Your task to perform on an android device: Add "razer blackwidow" to the cart on newegg, then select checkout. Image 0: 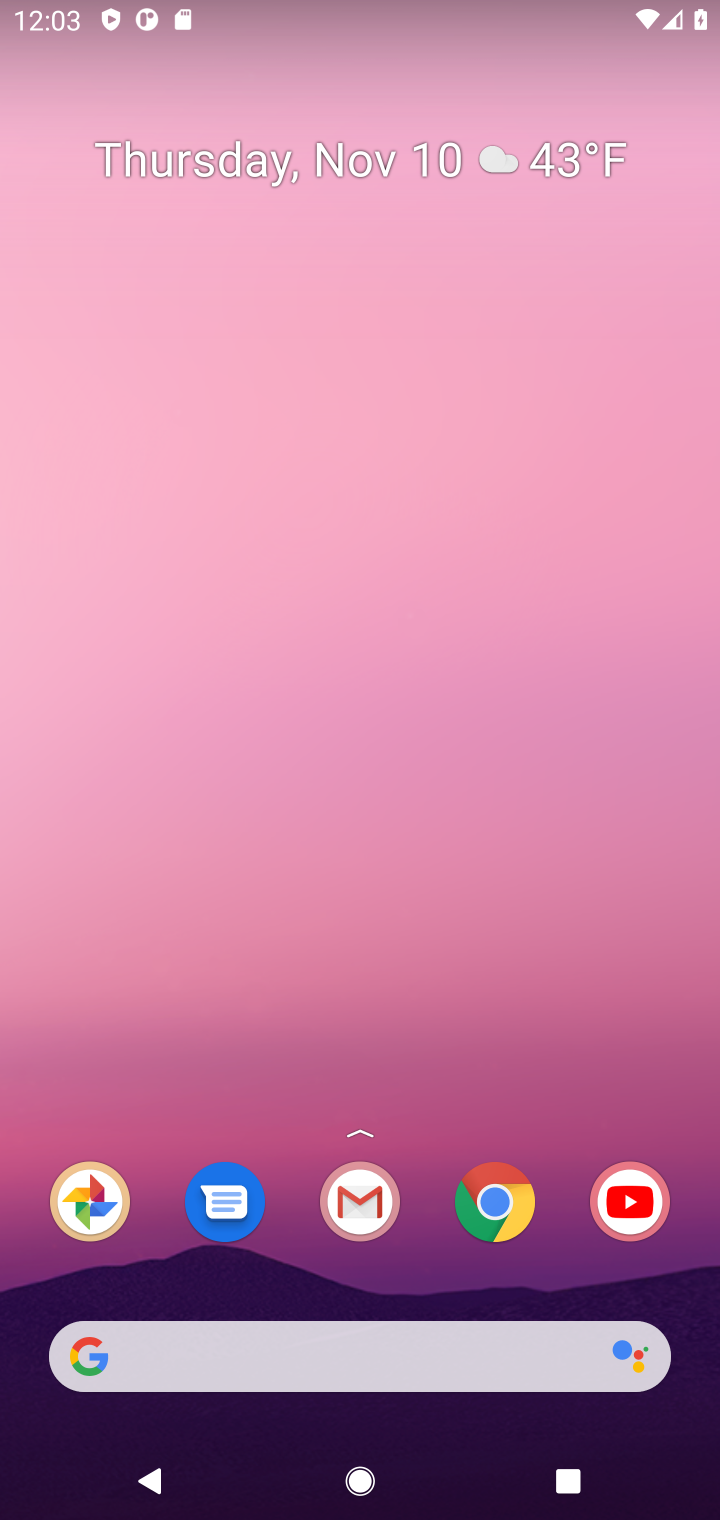
Step 0: click (502, 1208)
Your task to perform on an android device: Add "razer blackwidow" to the cart on newegg, then select checkout. Image 1: 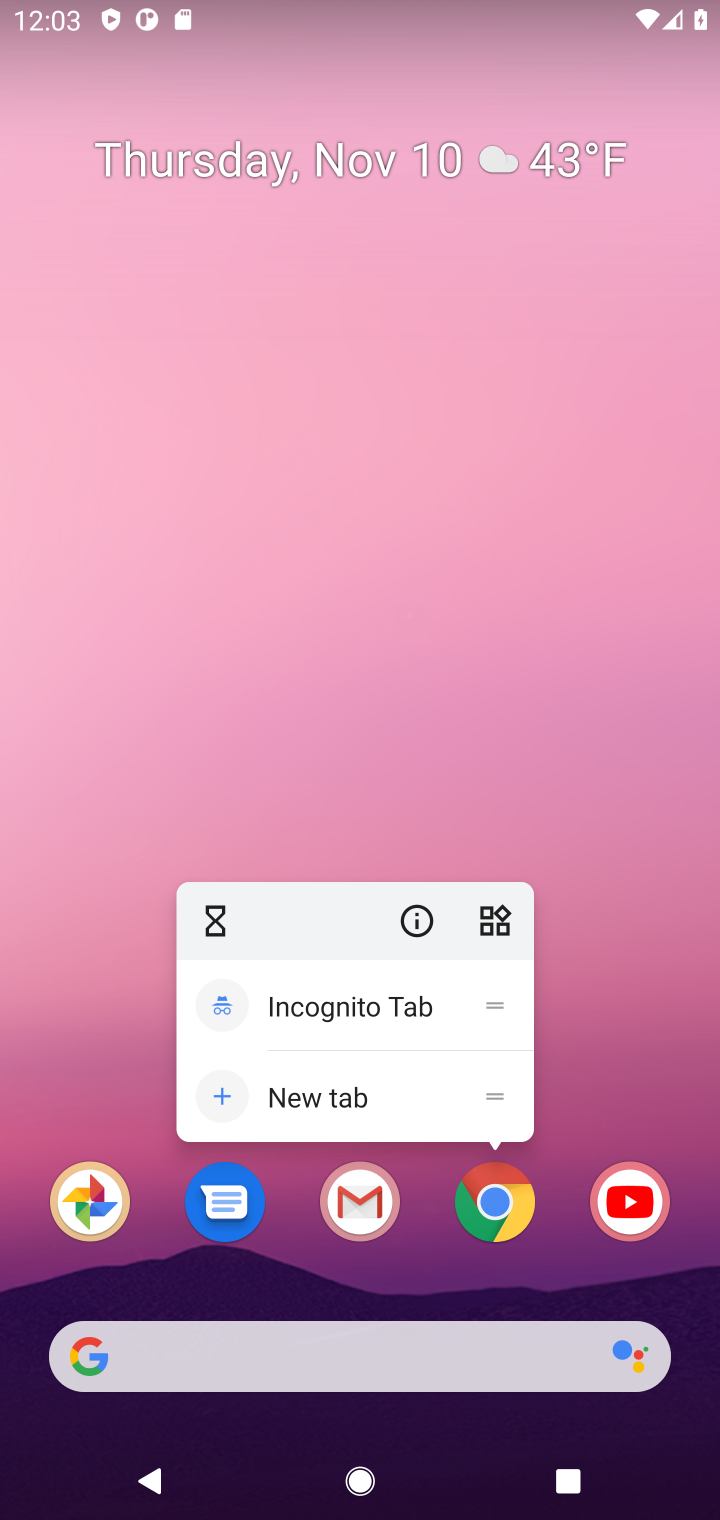
Step 1: click (506, 1196)
Your task to perform on an android device: Add "razer blackwidow" to the cart on newegg, then select checkout. Image 2: 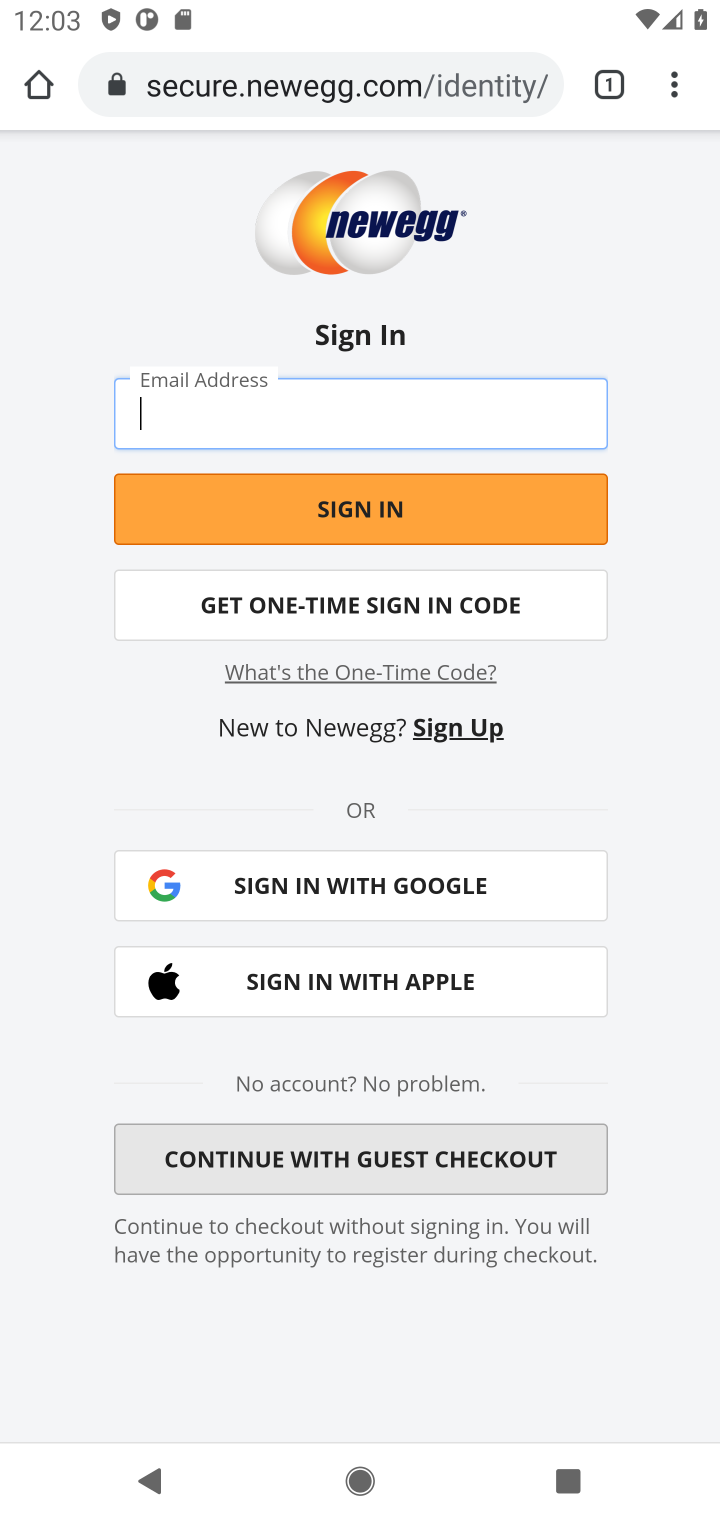
Step 2: press back button
Your task to perform on an android device: Add "razer blackwidow" to the cart on newegg, then select checkout. Image 3: 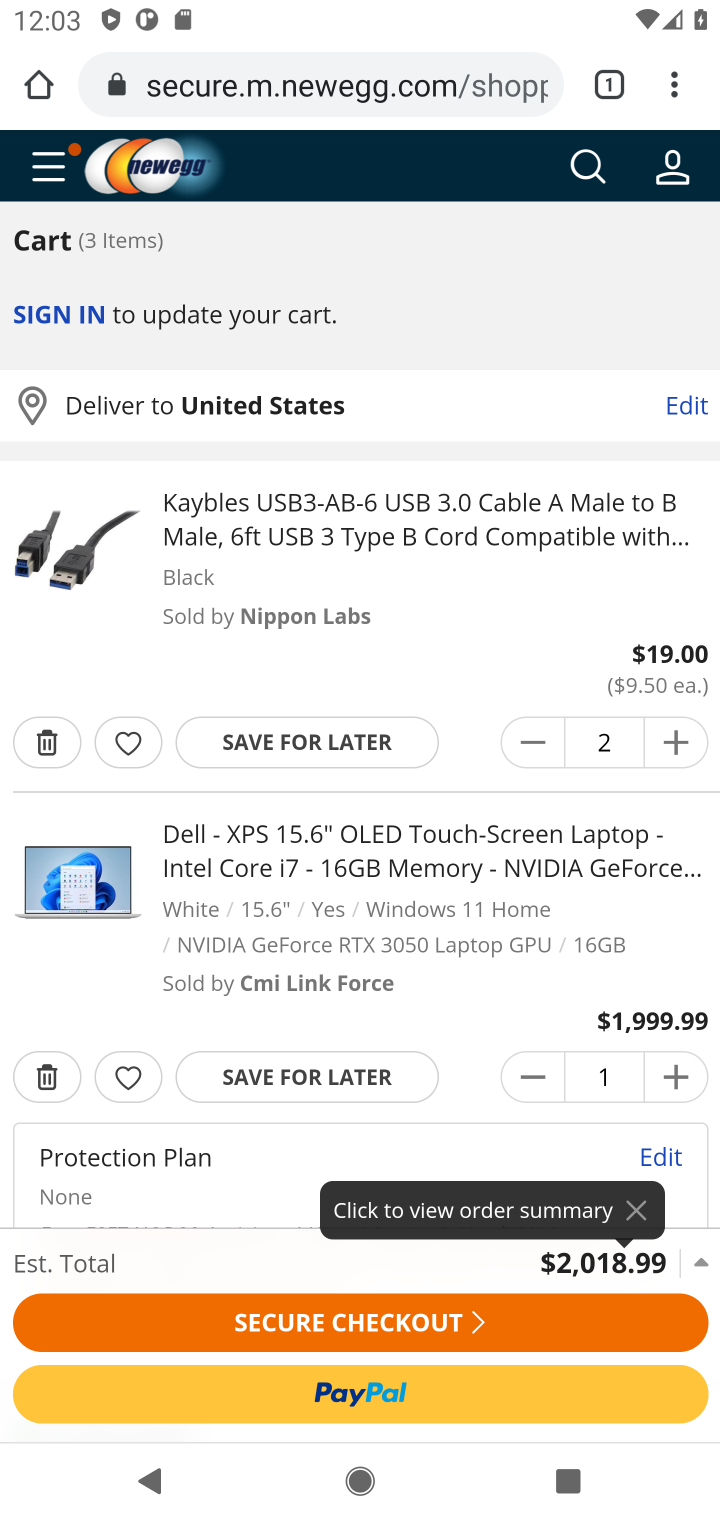
Step 3: click (585, 167)
Your task to perform on an android device: Add "razer blackwidow" to the cart on newegg, then select checkout. Image 4: 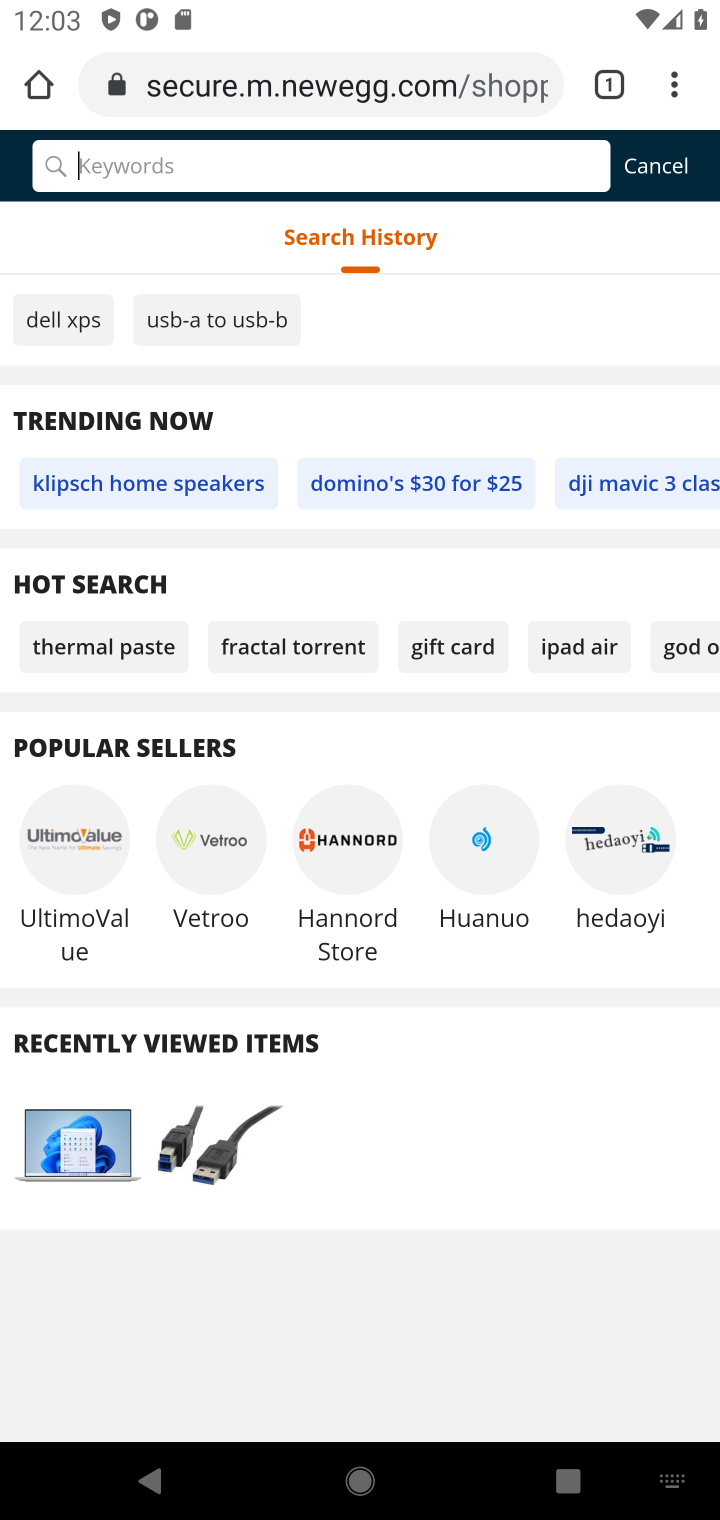
Step 4: type "razer blackwidow"
Your task to perform on an android device: Add "razer blackwidow" to the cart on newegg, then select checkout. Image 5: 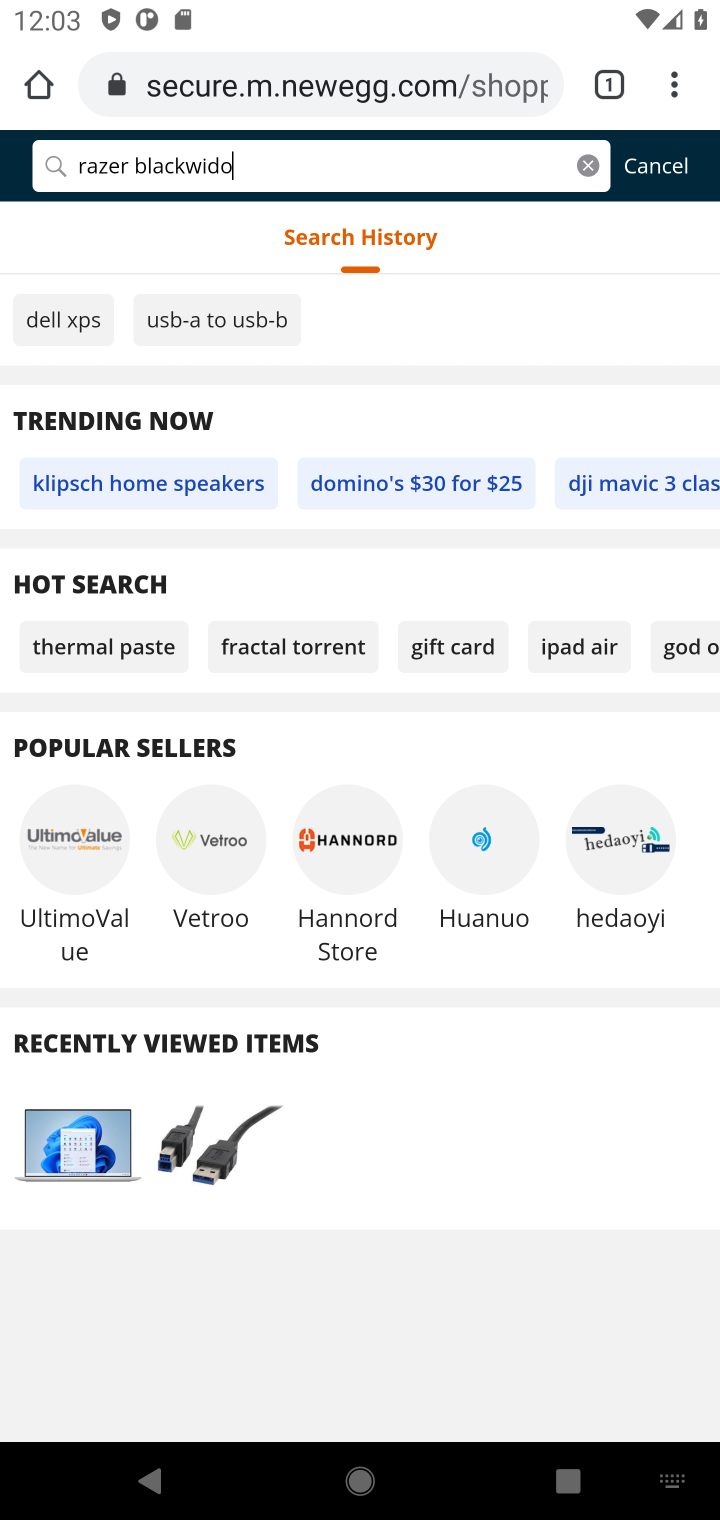
Step 5: press enter
Your task to perform on an android device: Add "razer blackwidow" to the cart on newegg, then select checkout. Image 6: 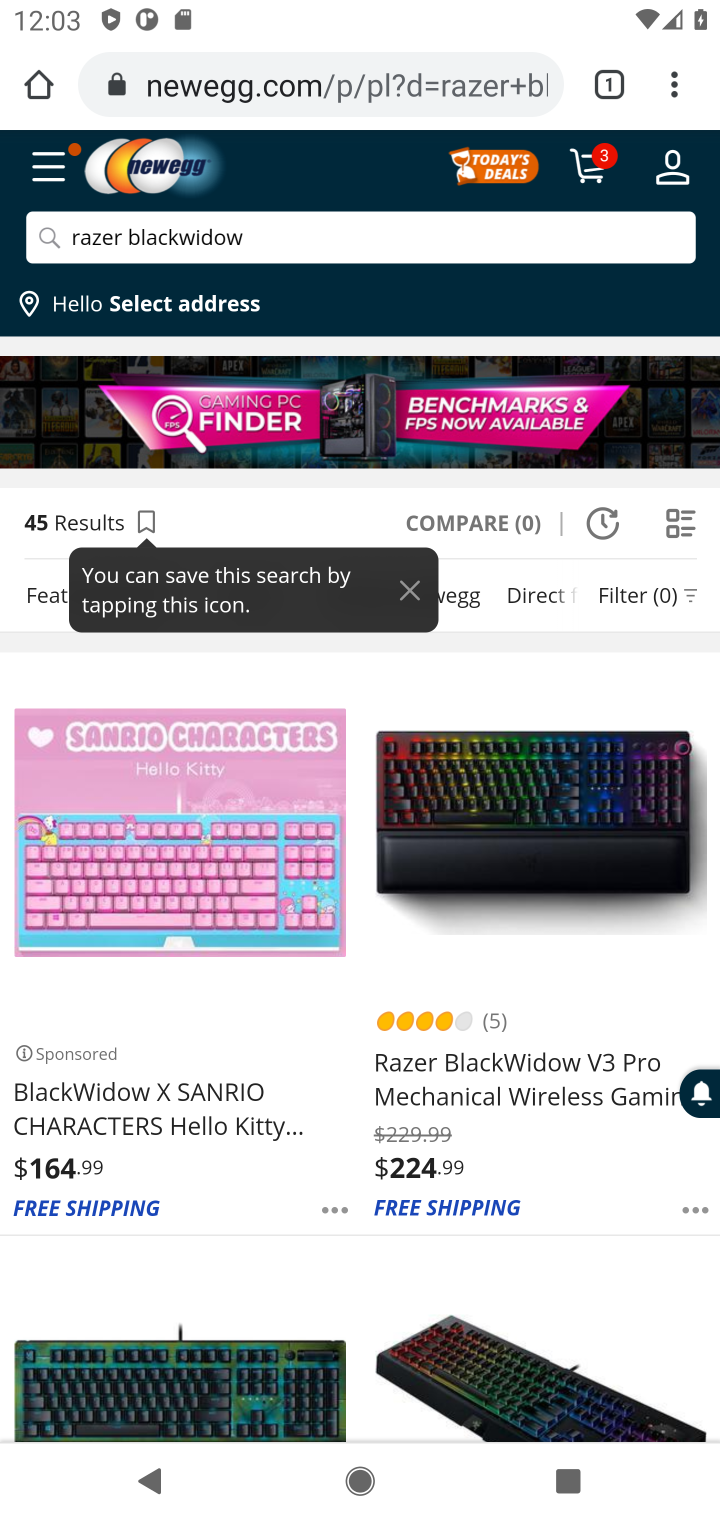
Step 6: click (547, 794)
Your task to perform on an android device: Add "razer blackwidow" to the cart on newegg, then select checkout. Image 7: 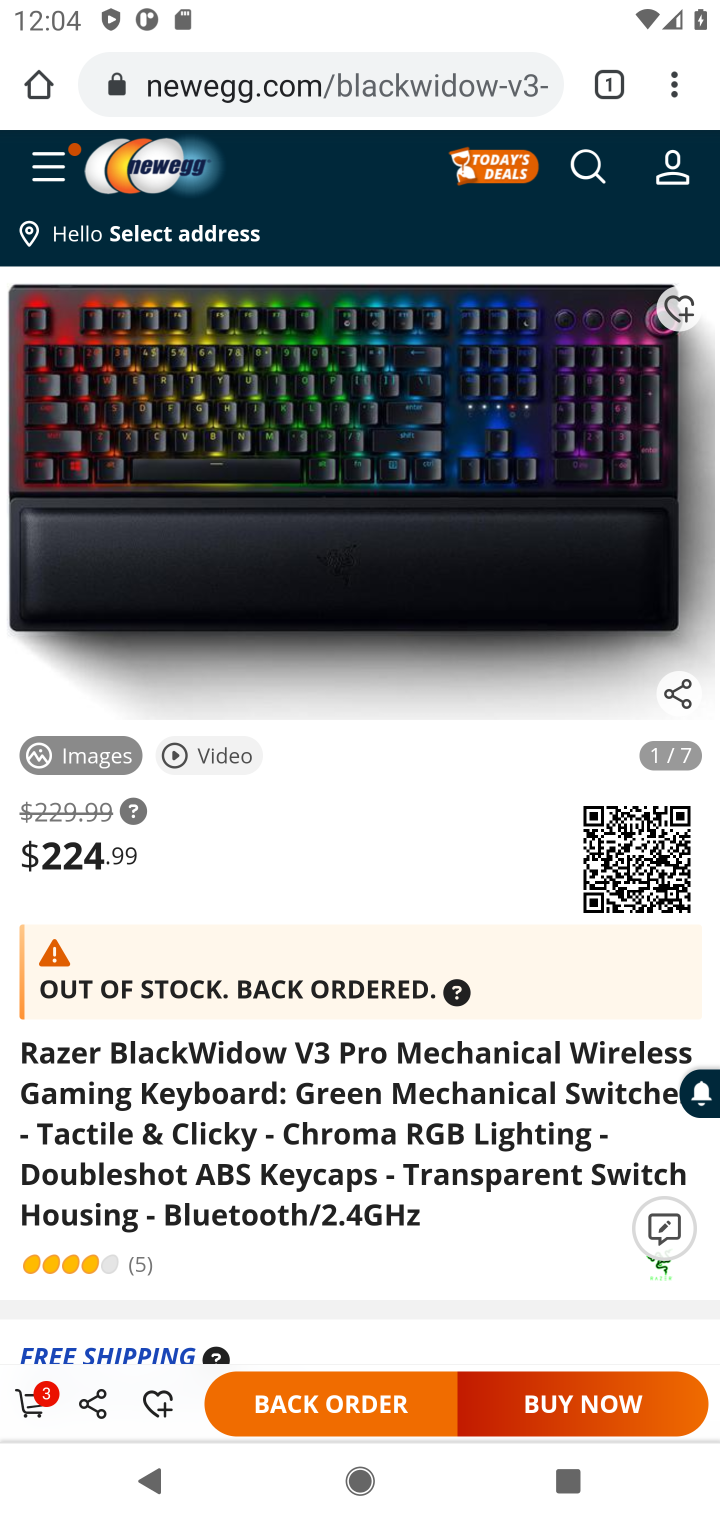
Step 7: drag from (419, 1212) to (444, 452)
Your task to perform on an android device: Add "razer blackwidow" to the cart on newegg, then select checkout. Image 8: 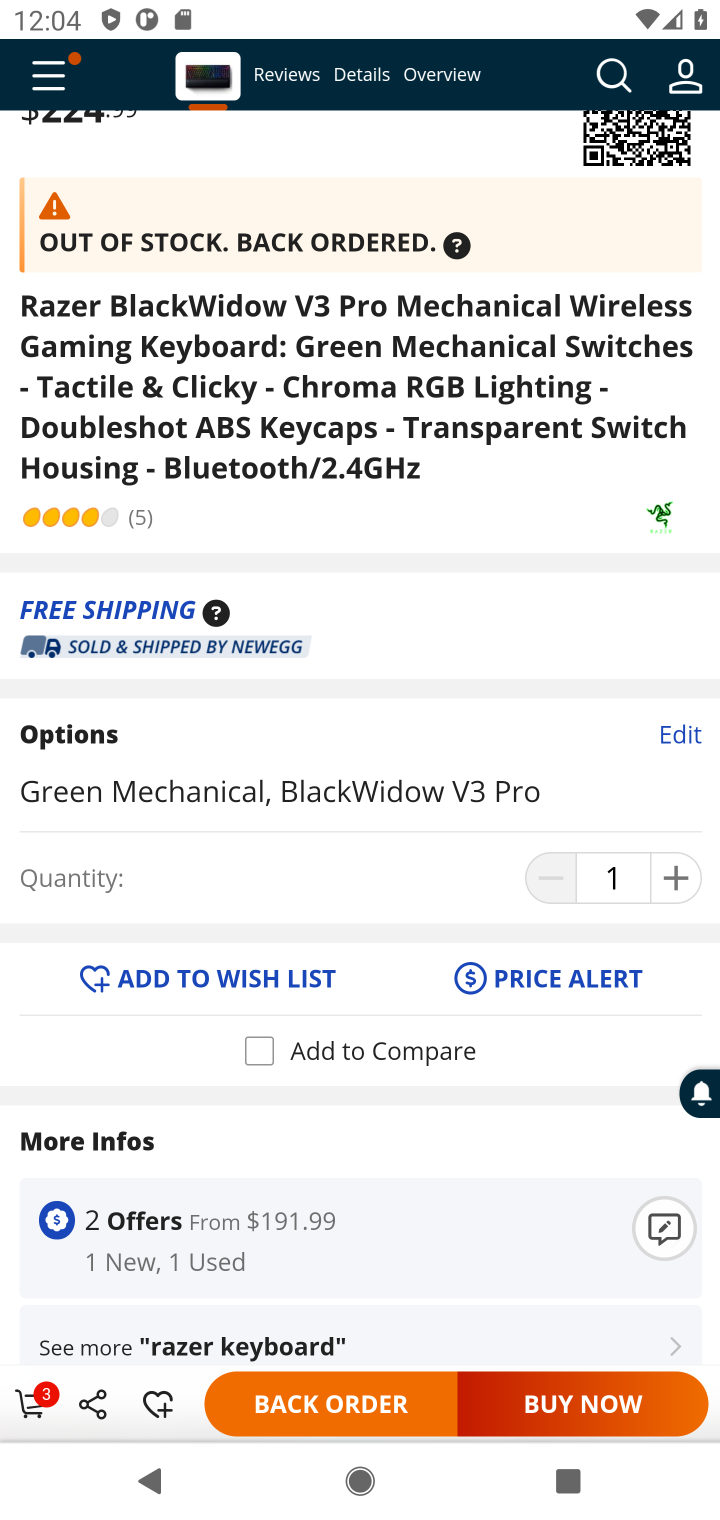
Step 8: drag from (476, 1127) to (482, 586)
Your task to perform on an android device: Add "razer blackwidow" to the cart on newegg, then select checkout. Image 9: 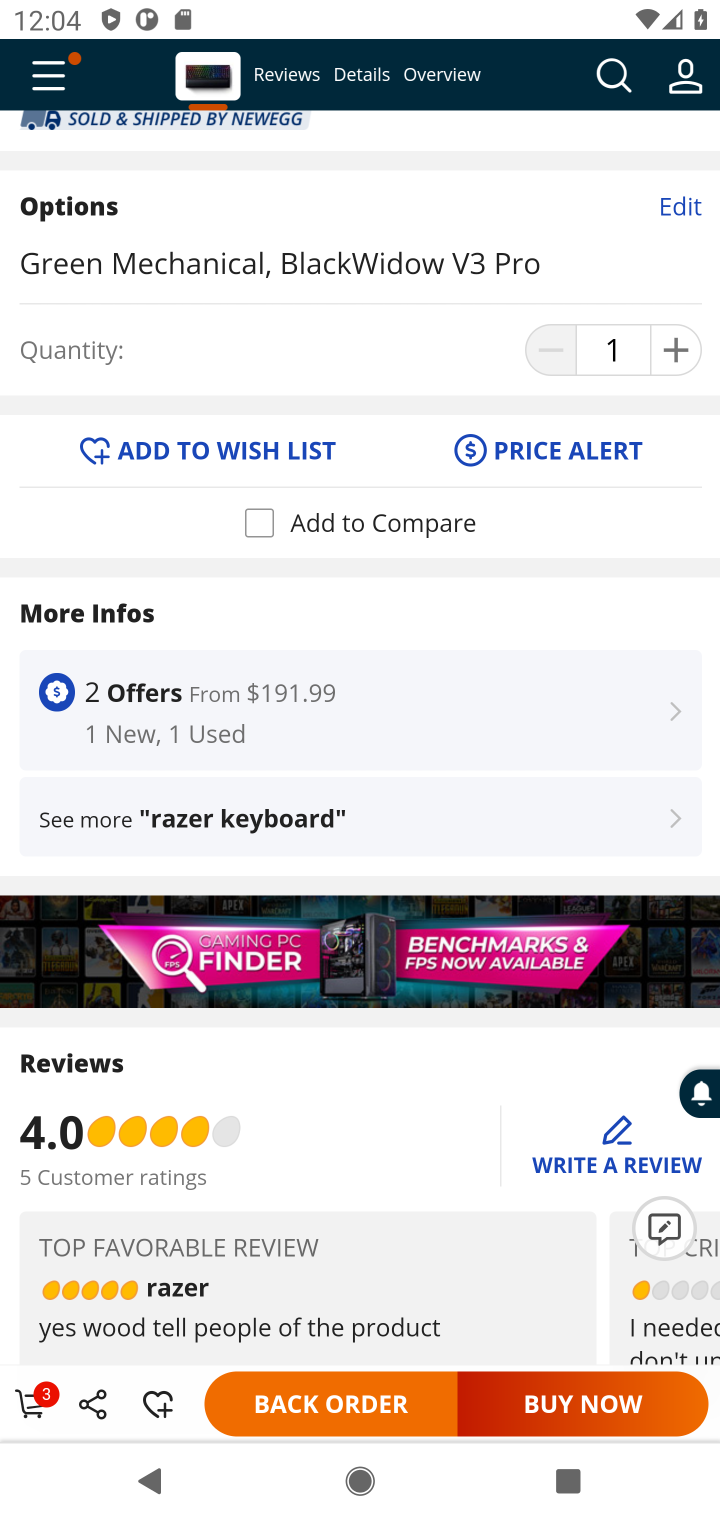
Step 9: press back button
Your task to perform on an android device: Add "razer blackwidow" to the cart on newegg, then select checkout. Image 10: 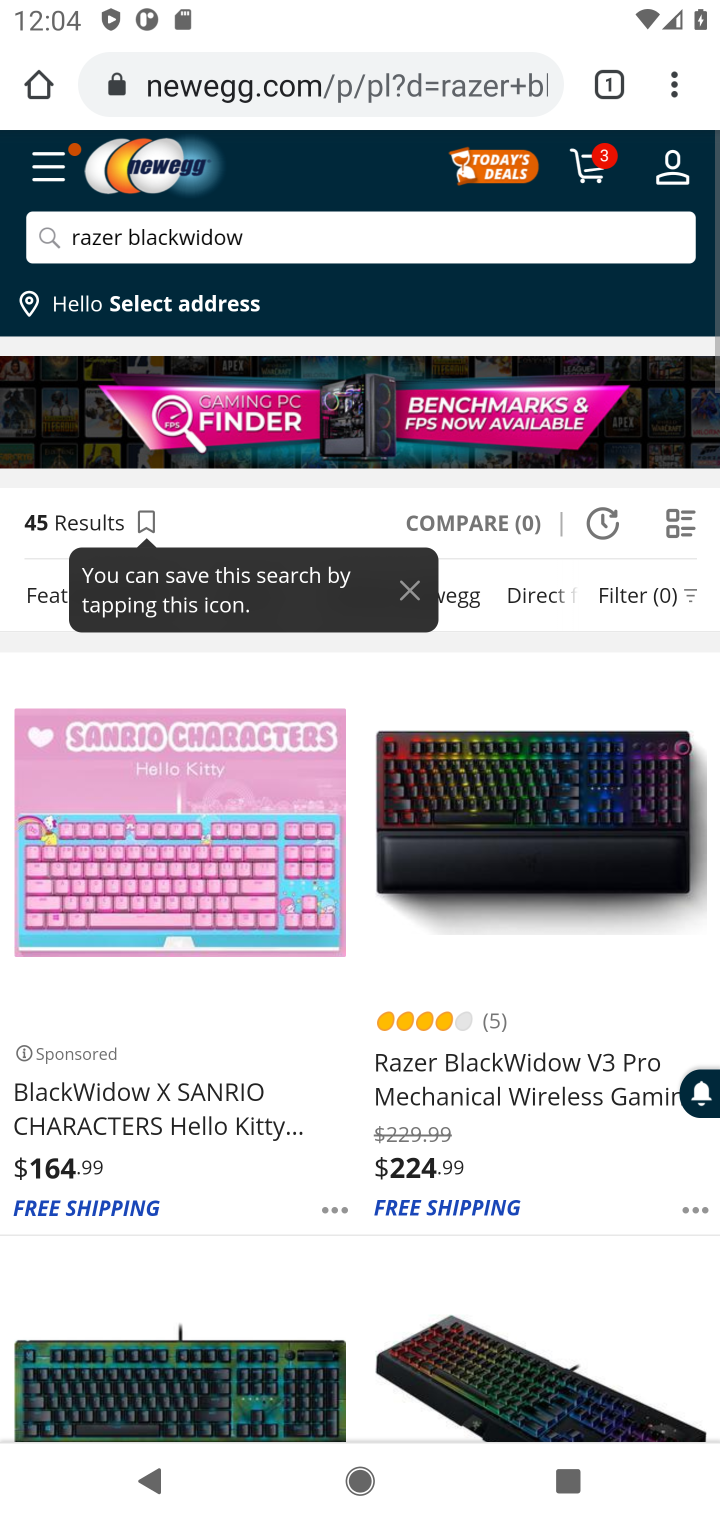
Step 10: drag from (532, 1060) to (513, 788)
Your task to perform on an android device: Add "razer blackwidow" to the cart on newegg, then select checkout. Image 11: 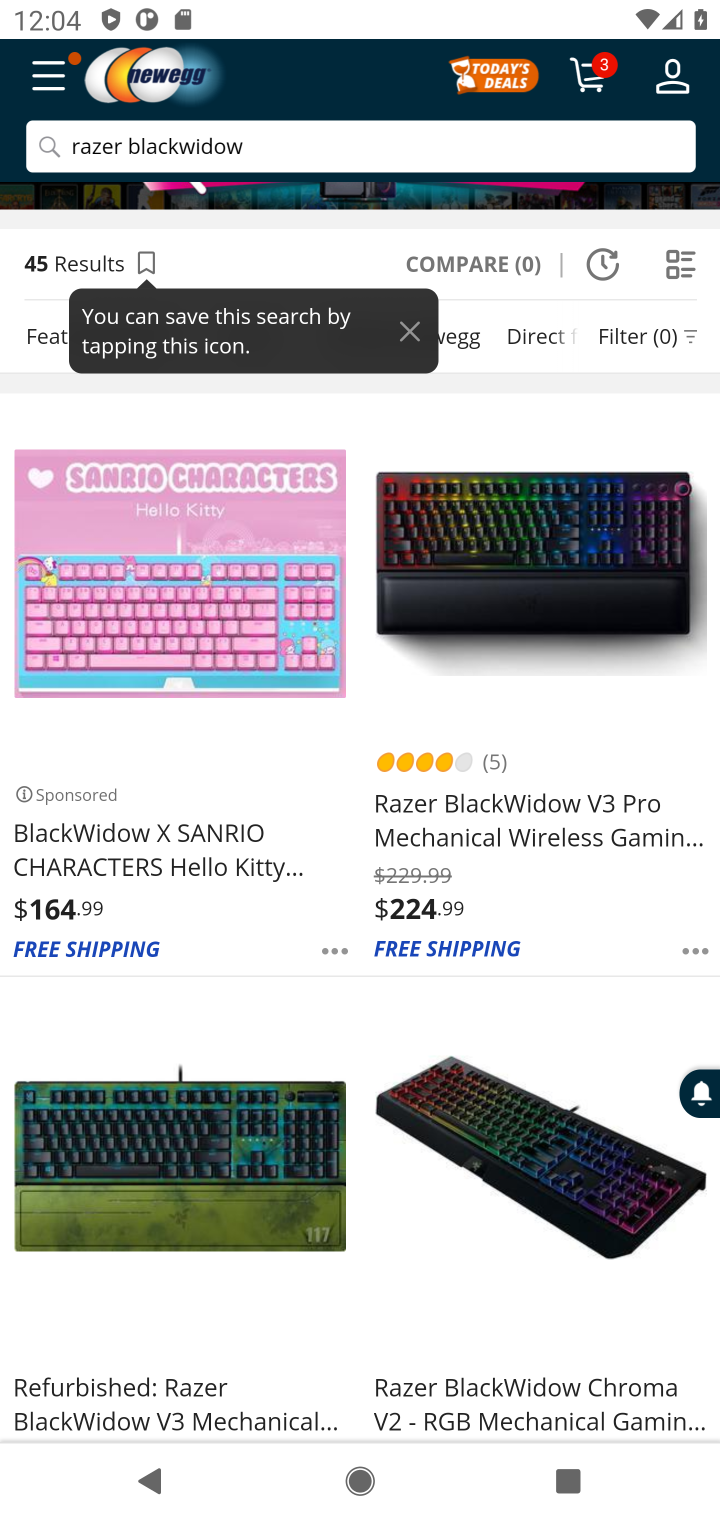
Step 11: click (533, 1164)
Your task to perform on an android device: Add "razer blackwidow" to the cart on newegg, then select checkout. Image 12: 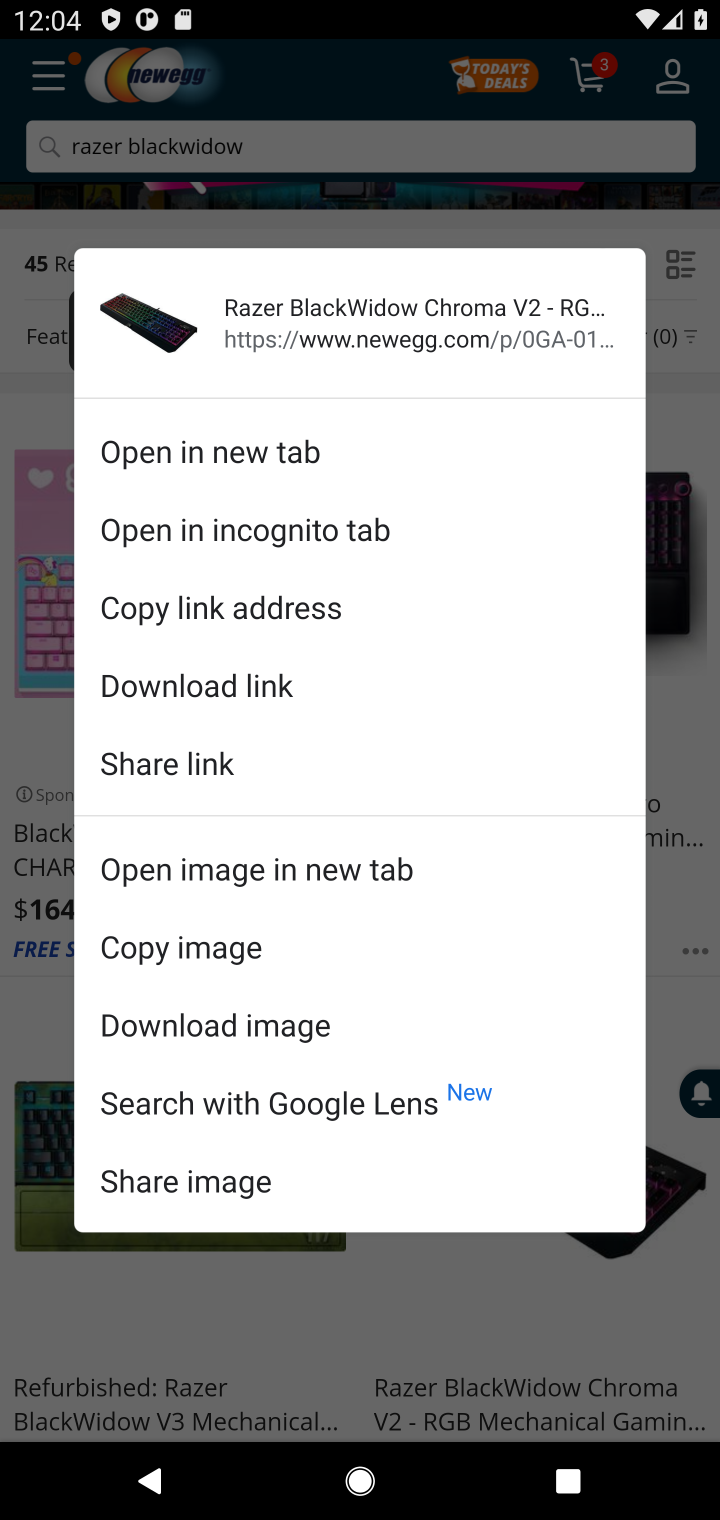
Step 12: click (560, 1265)
Your task to perform on an android device: Add "razer blackwidow" to the cart on newegg, then select checkout. Image 13: 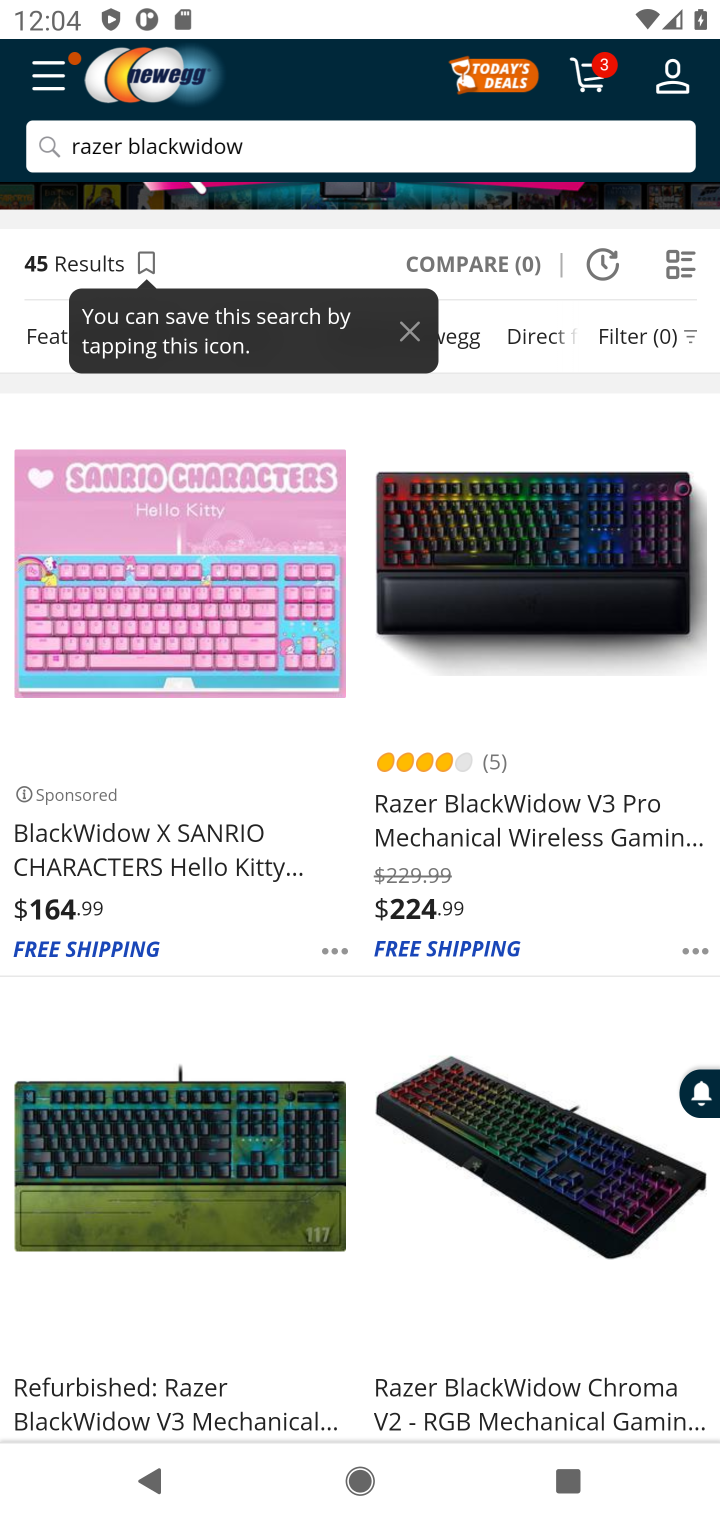
Step 13: click (578, 1180)
Your task to perform on an android device: Add "razer blackwidow" to the cart on newegg, then select checkout. Image 14: 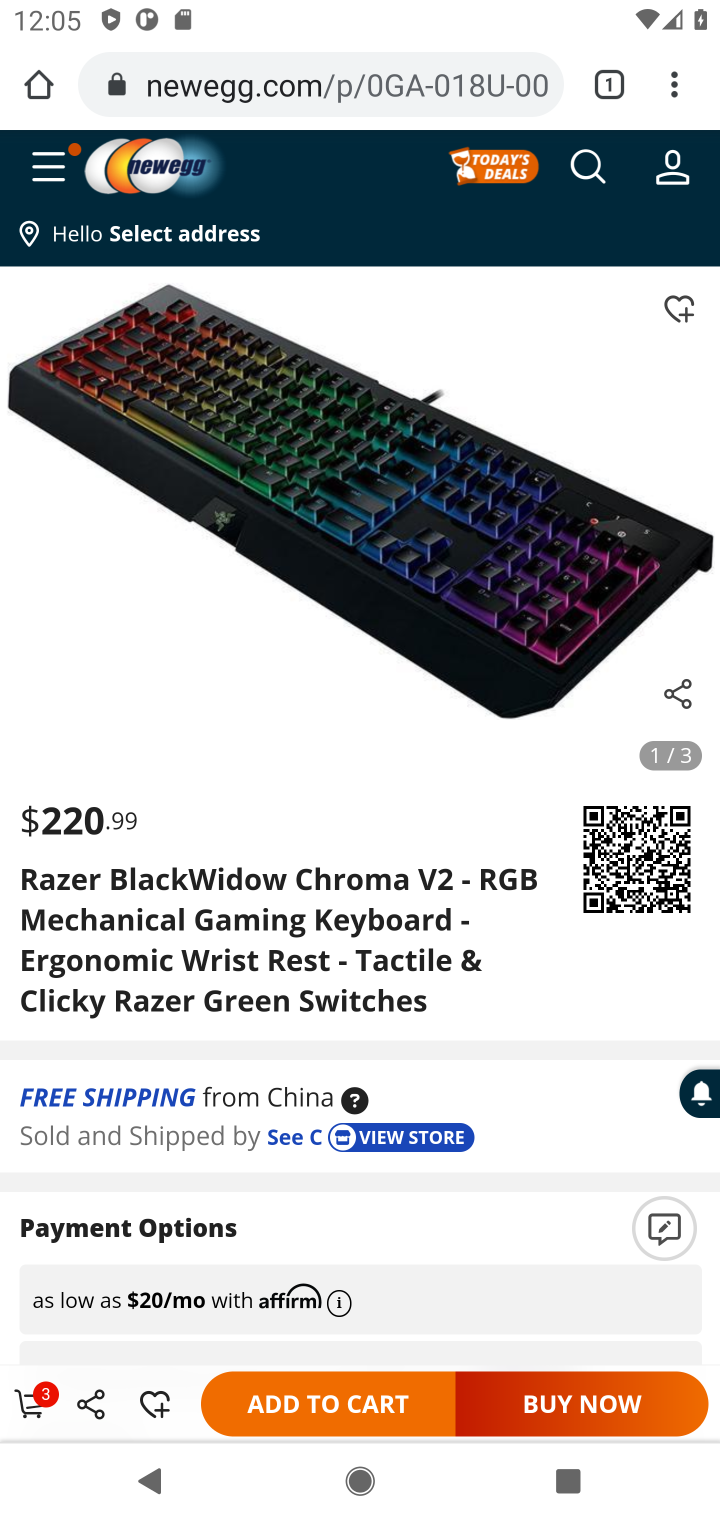
Step 14: click (318, 1402)
Your task to perform on an android device: Add "razer blackwidow" to the cart on newegg, then select checkout. Image 15: 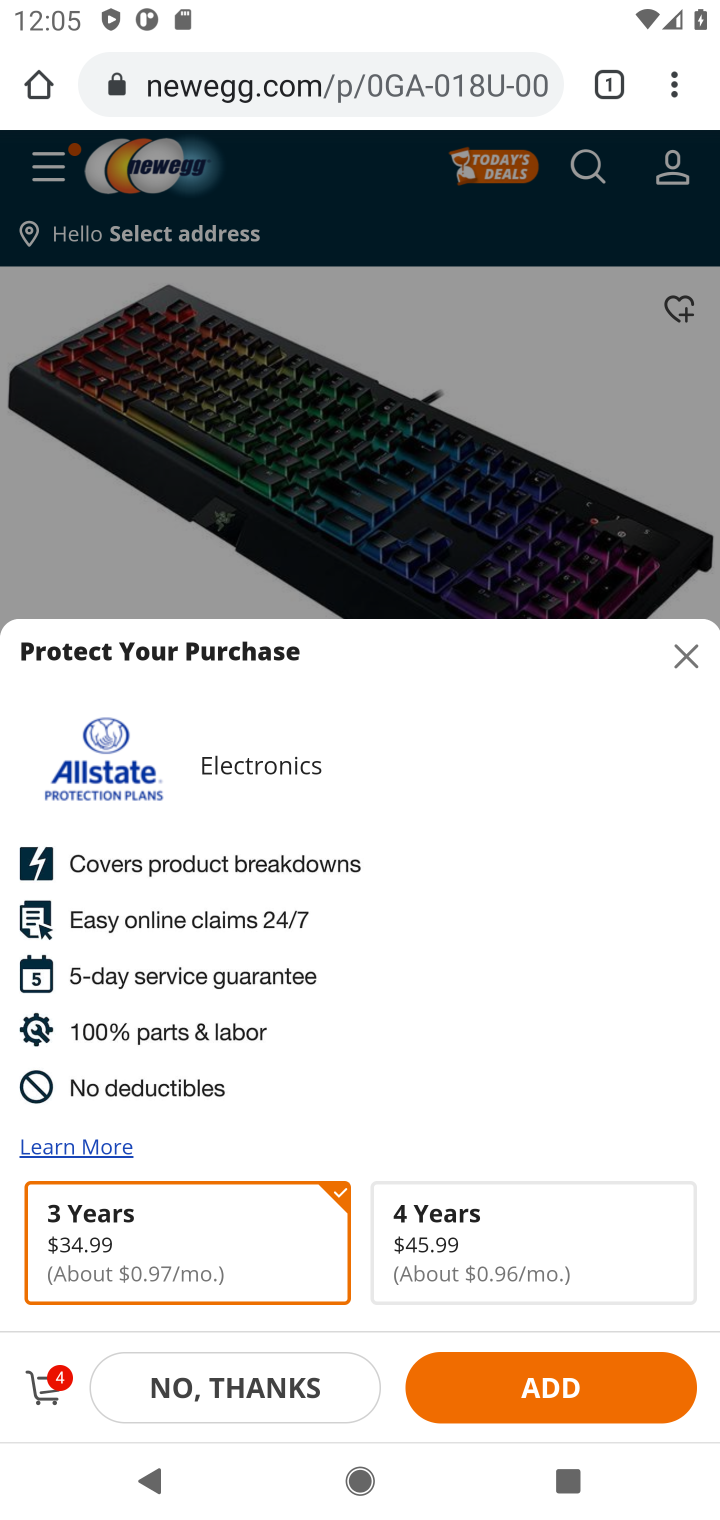
Step 15: click (689, 653)
Your task to perform on an android device: Add "razer blackwidow" to the cart on newegg, then select checkout. Image 16: 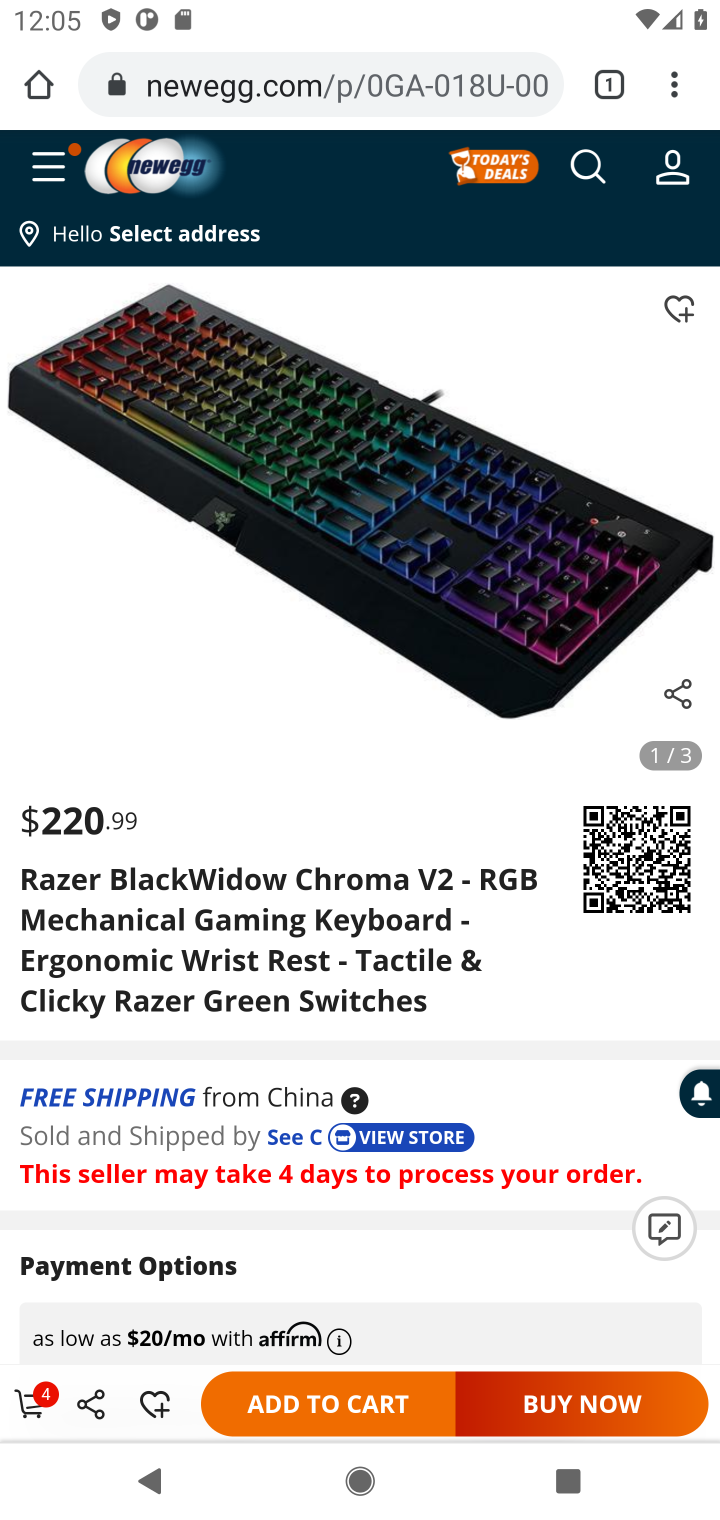
Step 16: click (34, 1416)
Your task to perform on an android device: Add "razer blackwidow" to the cart on newegg, then select checkout. Image 17: 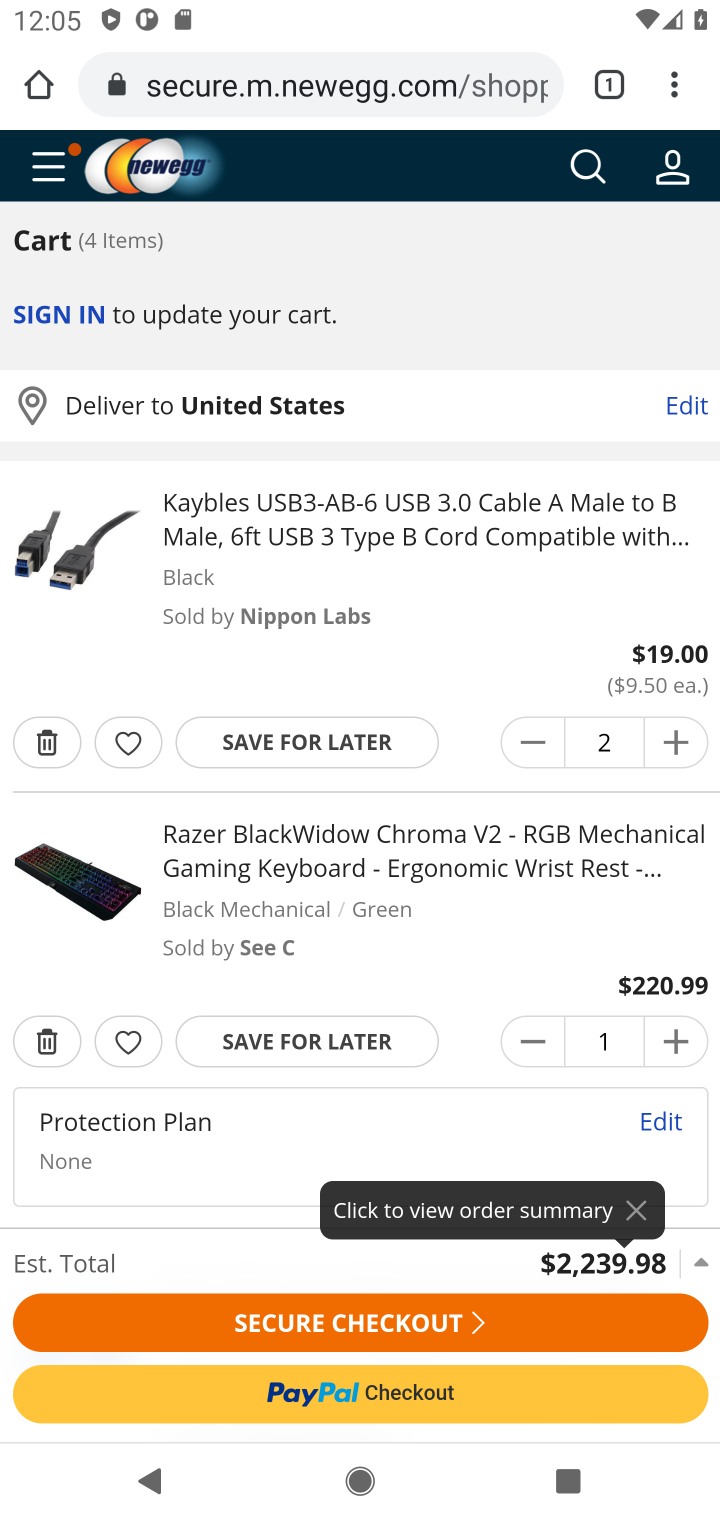
Step 17: click (371, 1320)
Your task to perform on an android device: Add "razer blackwidow" to the cart on newegg, then select checkout. Image 18: 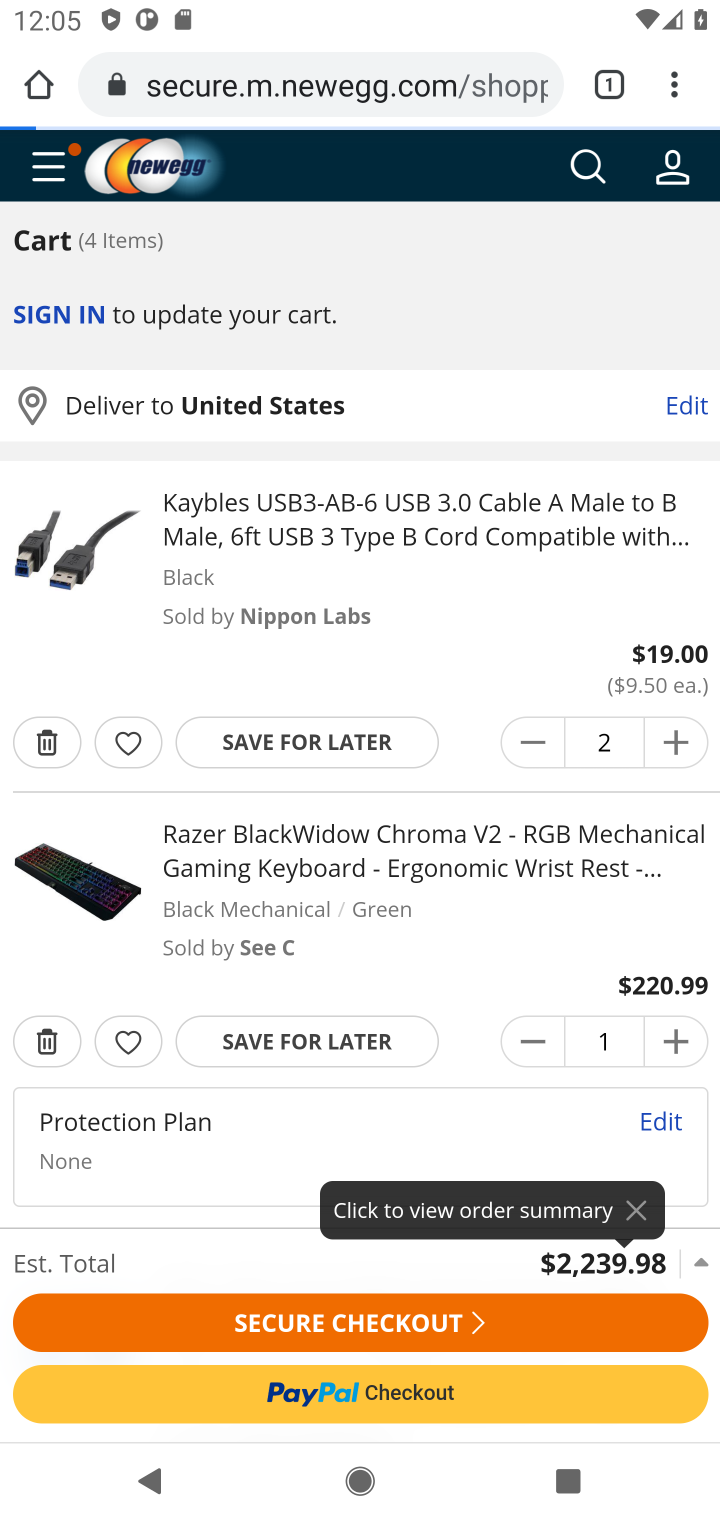
Step 18: task complete